Your task to perform on an android device: Open Google Maps and go to "Timeline" Image 0: 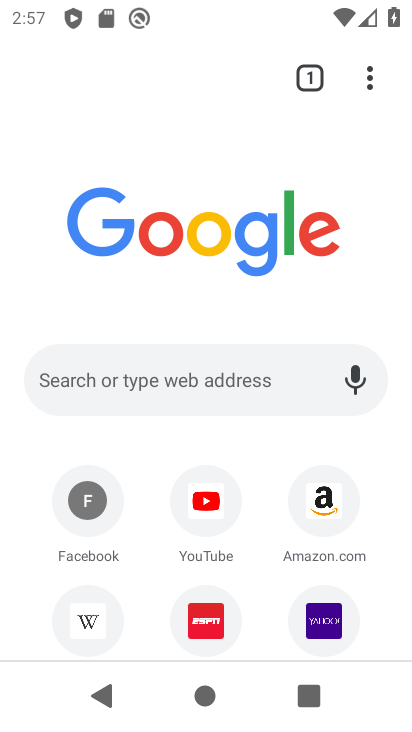
Step 0: press home button
Your task to perform on an android device: Open Google Maps and go to "Timeline" Image 1: 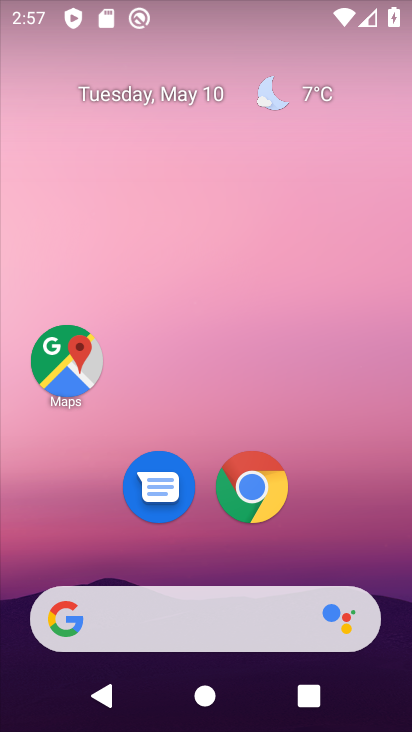
Step 1: drag from (341, 518) to (343, 170)
Your task to perform on an android device: Open Google Maps and go to "Timeline" Image 2: 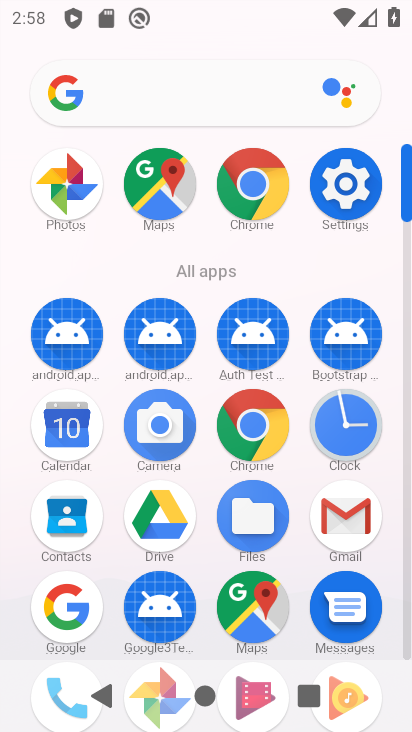
Step 2: click (261, 606)
Your task to perform on an android device: Open Google Maps and go to "Timeline" Image 3: 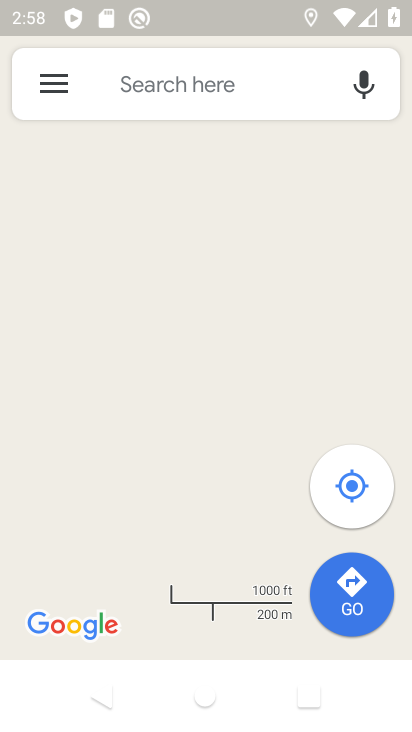
Step 3: click (49, 77)
Your task to perform on an android device: Open Google Maps and go to "Timeline" Image 4: 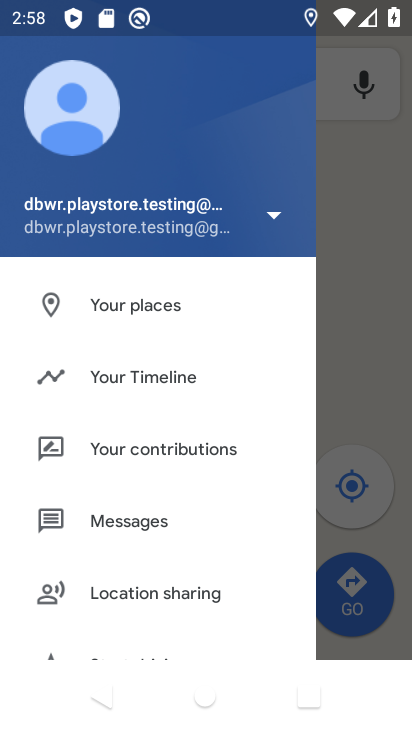
Step 4: click (175, 362)
Your task to perform on an android device: Open Google Maps and go to "Timeline" Image 5: 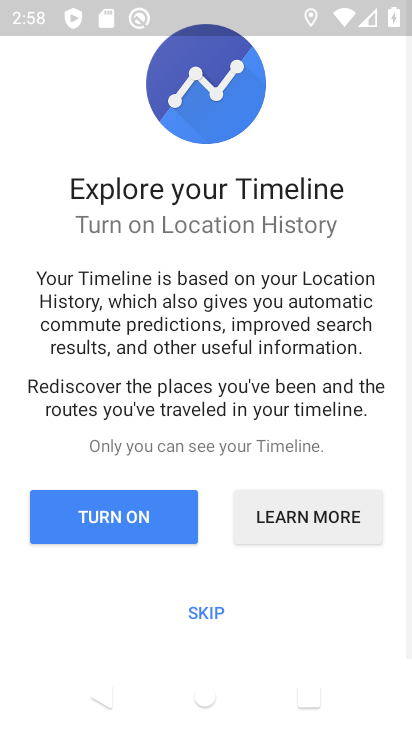
Step 5: click (157, 509)
Your task to perform on an android device: Open Google Maps and go to "Timeline" Image 6: 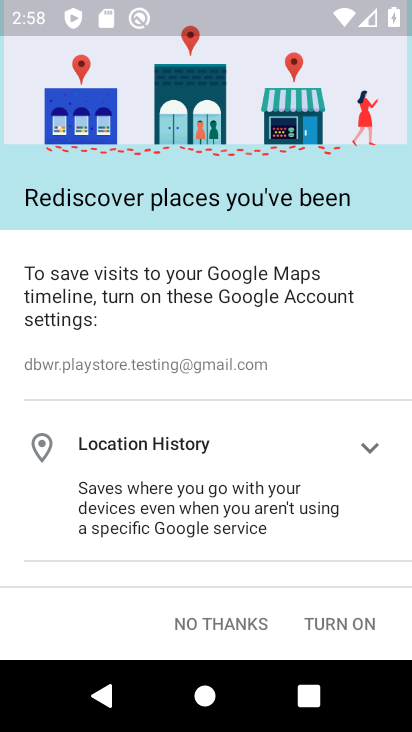
Step 6: click (234, 623)
Your task to perform on an android device: Open Google Maps and go to "Timeline" Image 7: 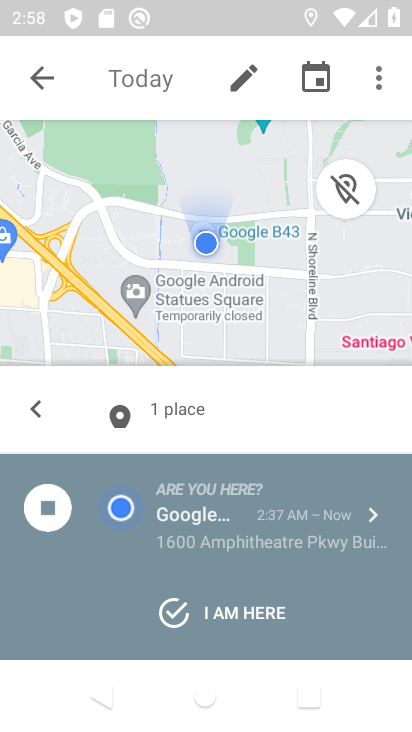
Step 7: task complete